Your task to perform on an android device: set the stopwatch Image 0: 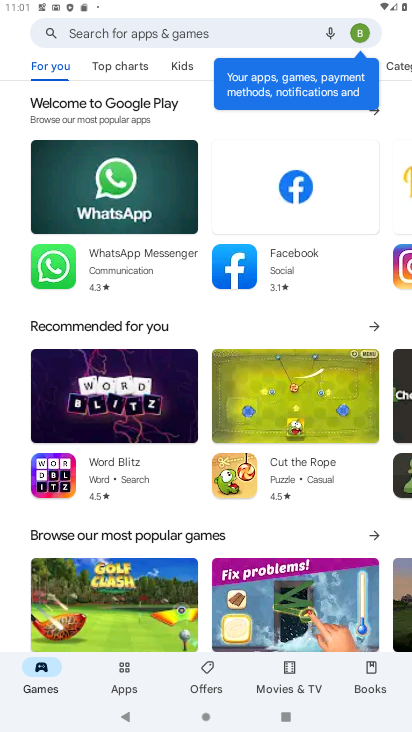
Step 0: press home button
Your task to perform on an android device: set the stopwatch Image 1: 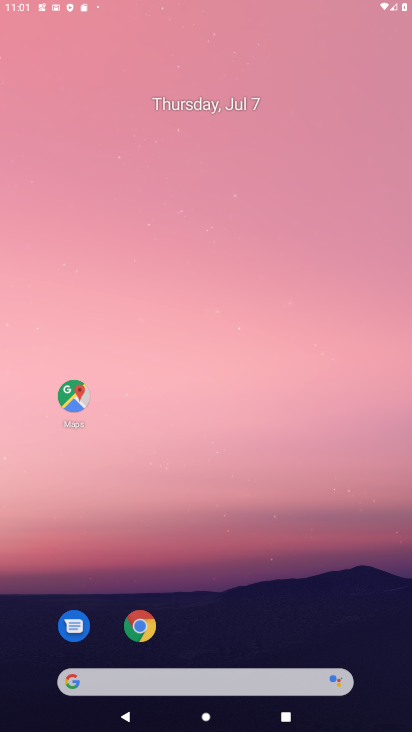
Step 1: drag from (231, 577) to (295, 20)
Your task to perform on an android device: set the stopwatch Image 2: 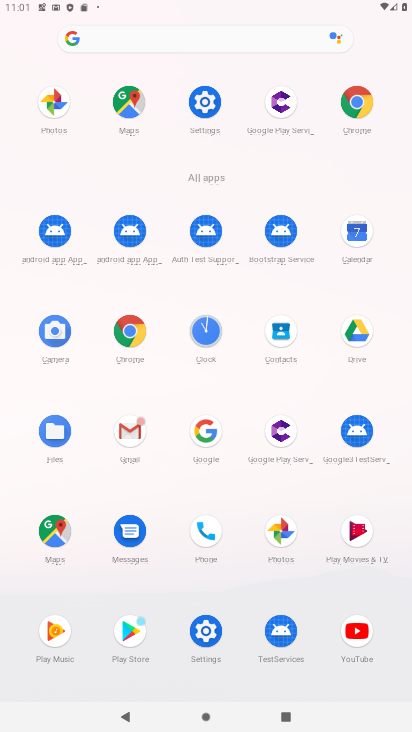
Step 2: click (212, 325)
Your task to perform on an android device: set the stopwatch Image 3: 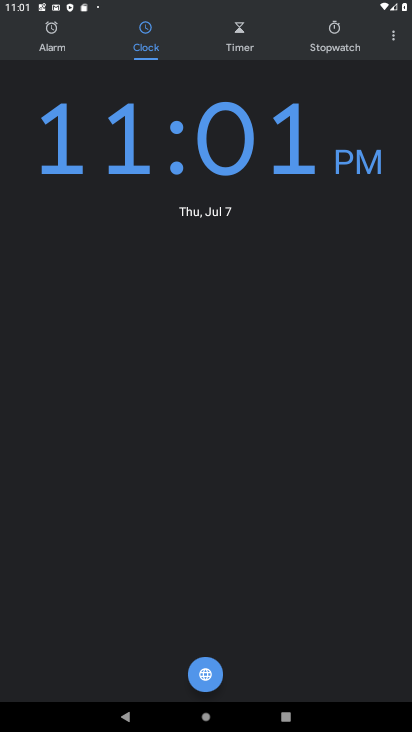
Step 3: click (314, 48)
Your task to perform on an android device: set the stopwatch Image 4: 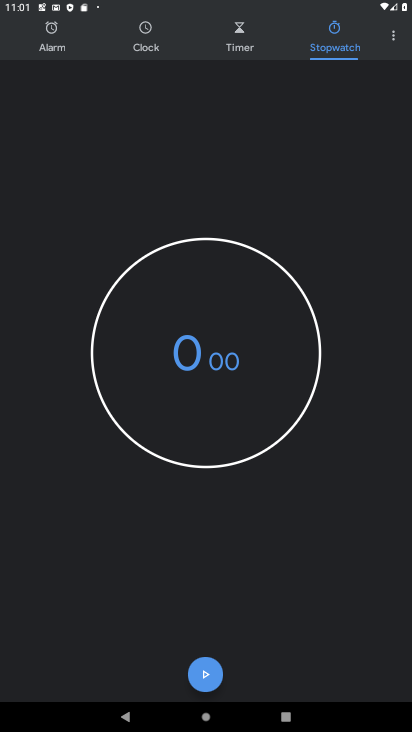
Step 4: click (203, 681)
Your task to perform on an android device: set the stopwatch Image 5: 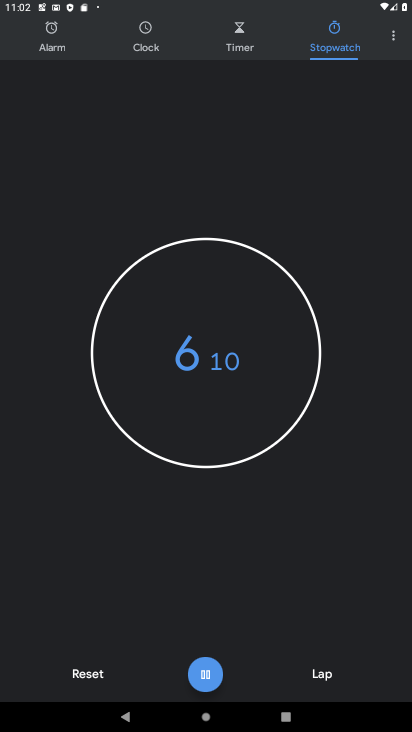
Step 5: task complete